Your task to perform on an android device: Search for usb-b on target.com, select the first entry, and add it to the cart. Image 0: 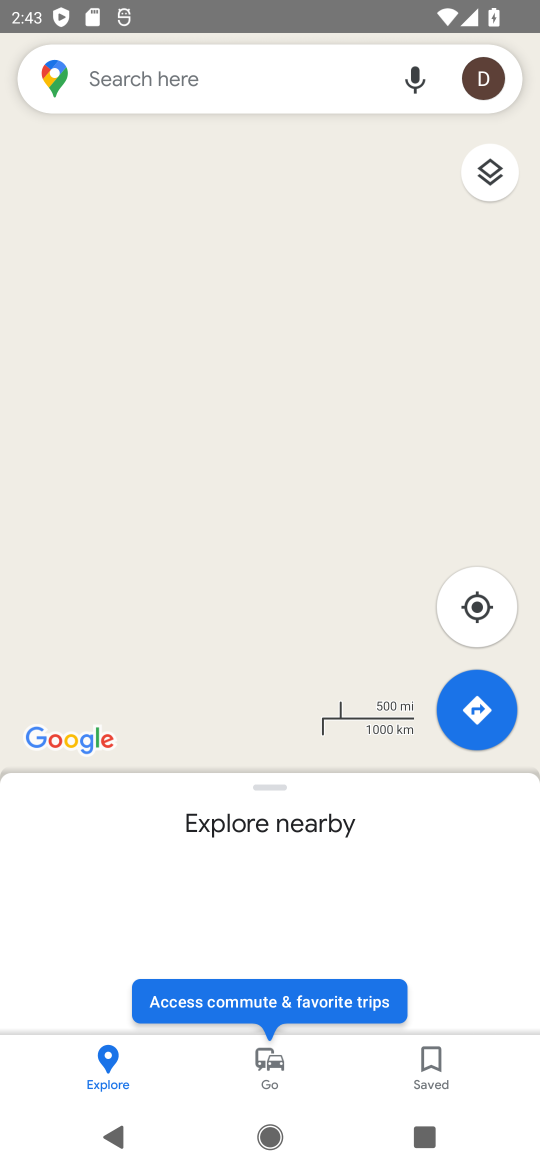
Step 0: press home button
Your task to perform on an android device: Search for usb-b on target.com, select the first entry, and add it to the cart. Image 1: 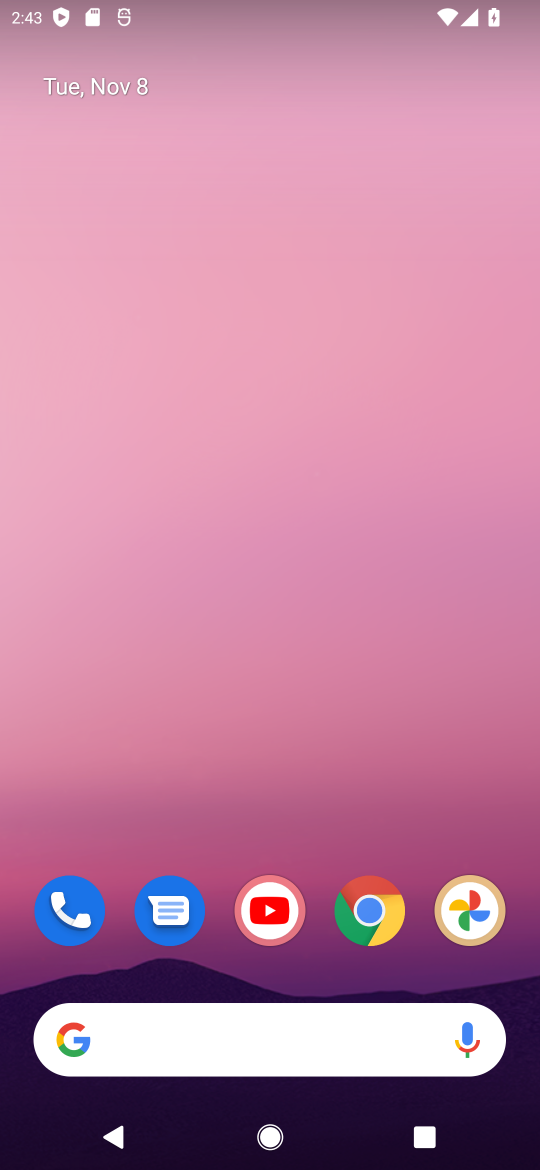
Step 1: drag from (309, 995) to (279, 273)
Your task to perform on an android device: Search for usb-b on target.com, select the first entry, and add it to the cart. Image 2: 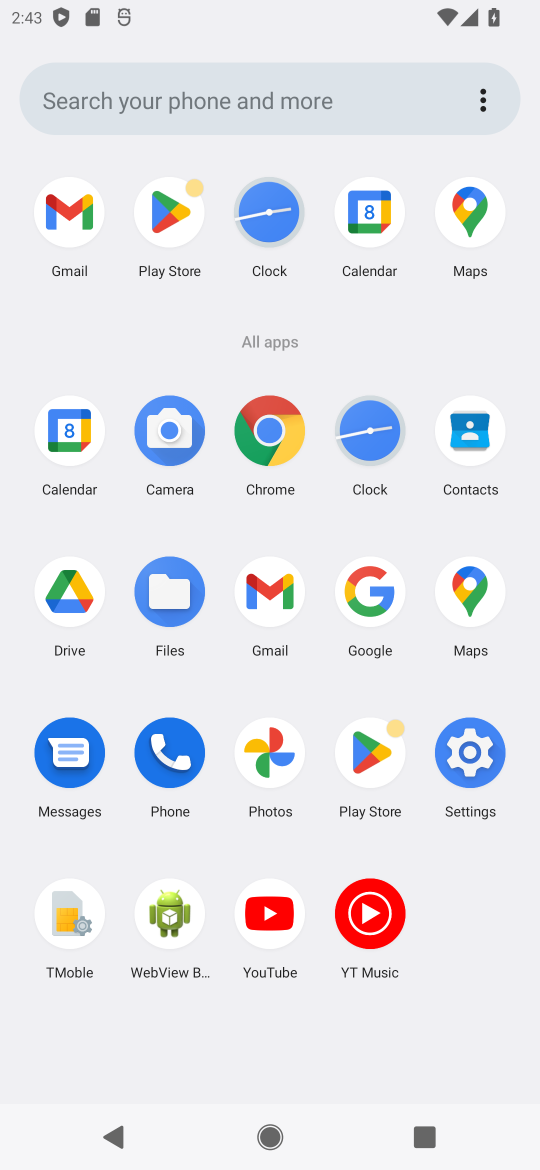
Step 2: click (278, 417)
Your task to perform on an android device: Search for usb-b on target.com, select the first entry, and add it to the cart. Image 3: 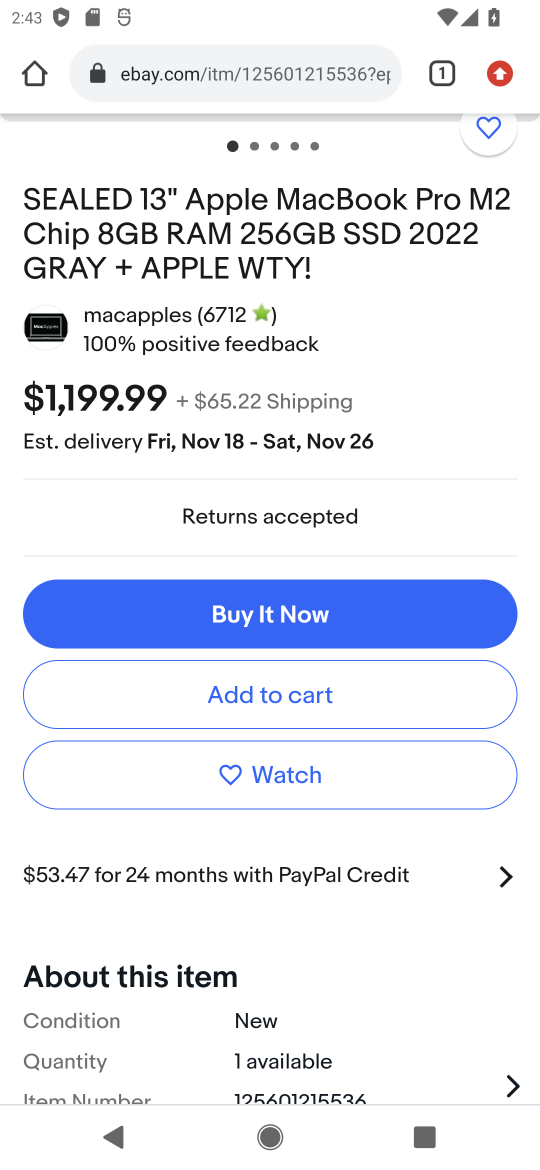
Step 3: click (209, 60)
Your task to perform on an android device: Search for usb-b on target.com, select the first entry, and add it to the cart. Image 4: 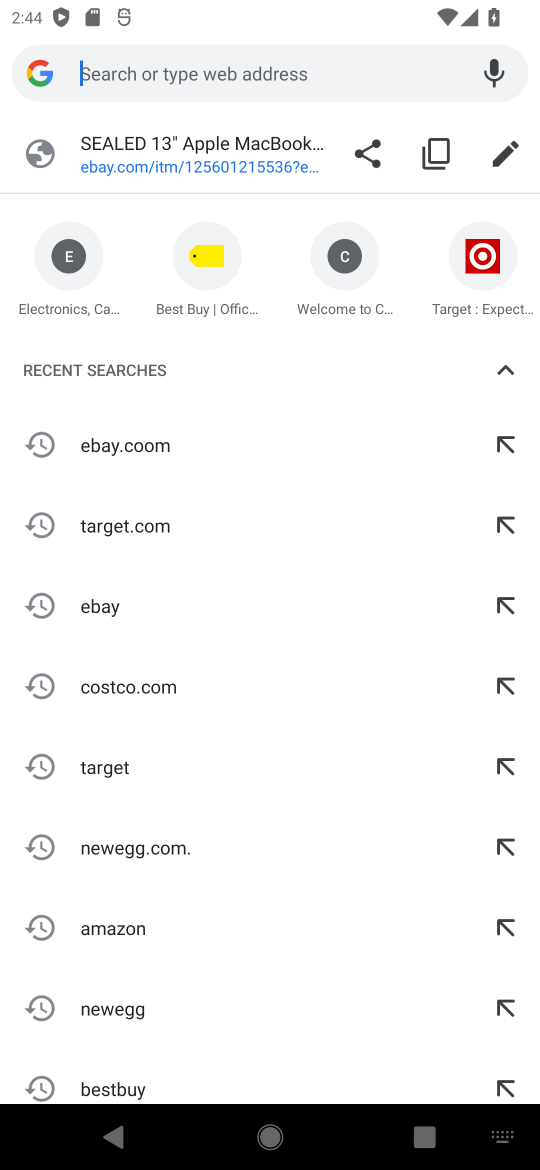
Step 4: type "target.com"
Your task to perform on an android device: Search for usb-b on target.com, select the first entry, and add it to the cart. Image 5: 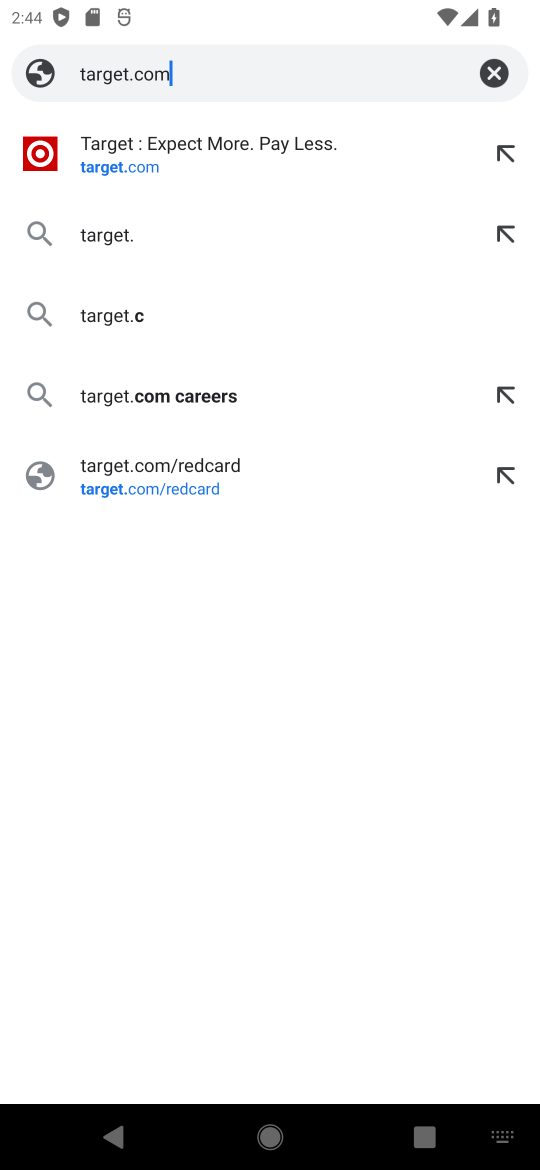
Step 5: press enter
Your task to perform on an android device: Search for usb-b on target.com, select the first entry, and add it to the cart. Image 6: 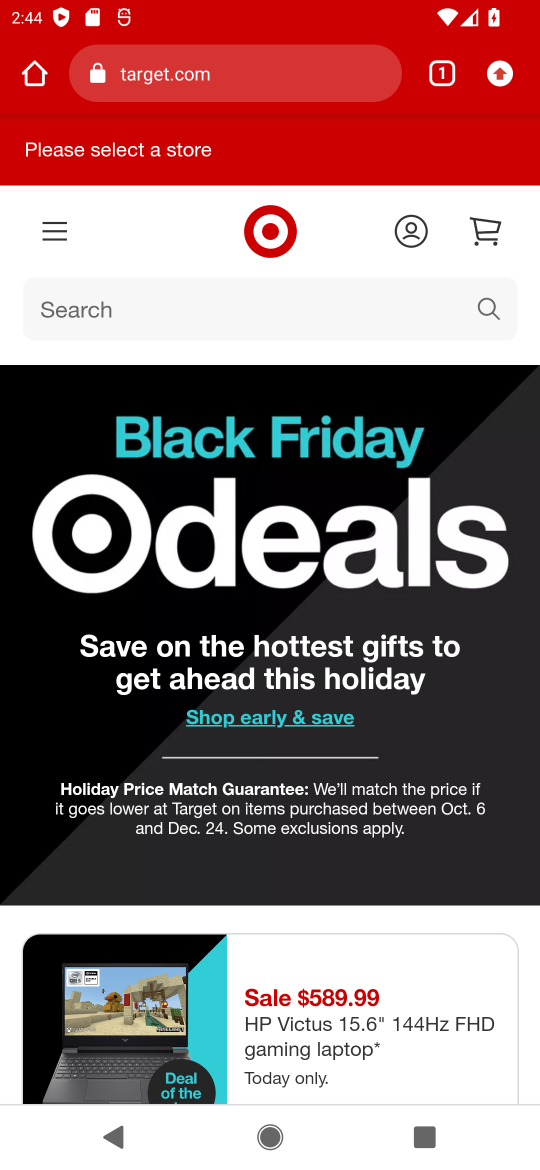
Step 6: click (317, 324)
Your task to perform on an android device: Search for usb-b on target.com, select the first entry, and add it to the cart. Image 7: 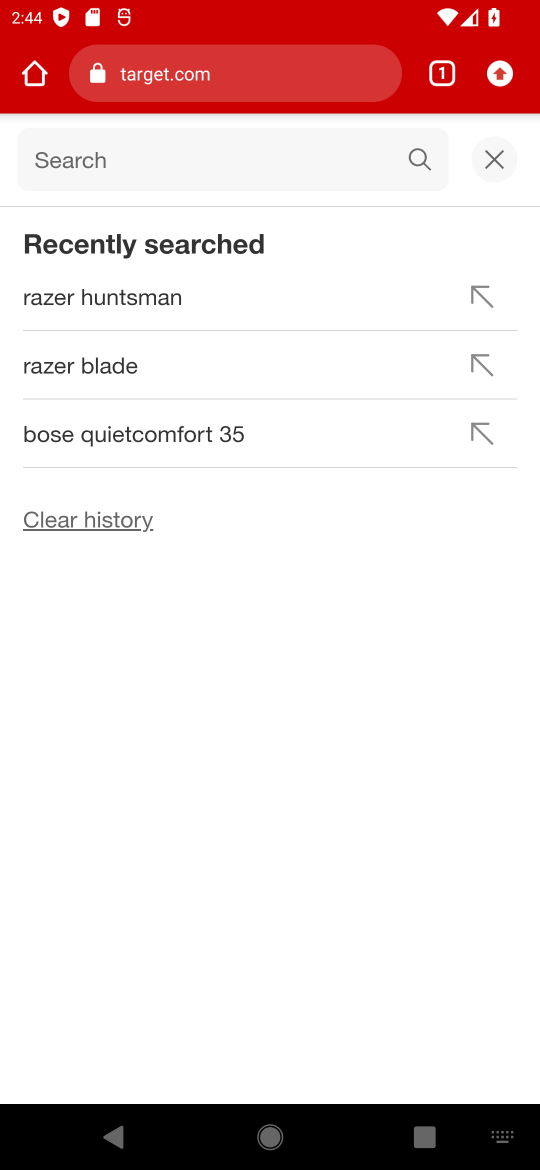
Step 7: type "usb-b"
Your task to perform on an android device: Search for usb-b on target.com, select the first entry, and add it to the cart. Image 8: 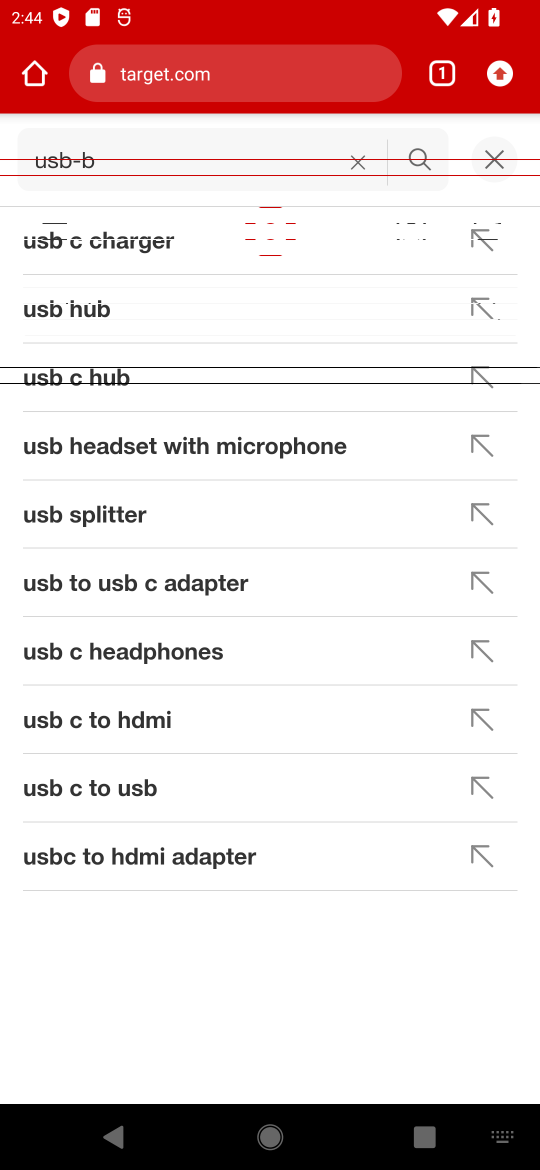
Step 8: press enter
Your task to perform on an android device: Search for usb-b on target.com, select the first entry, and add it to the cart. Image 9: 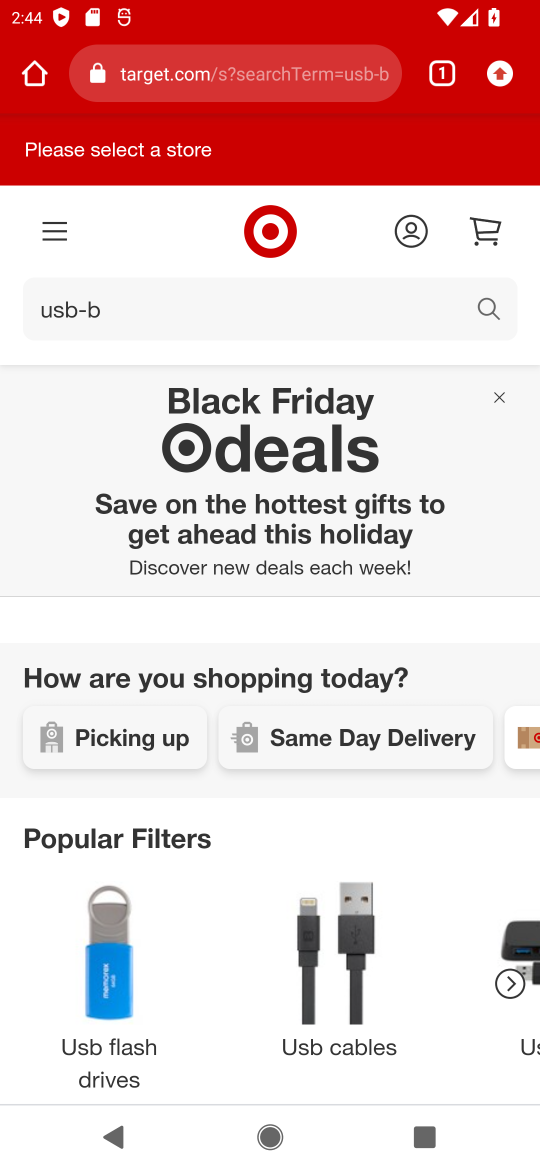
Step 9: task complete